Your task to perform on an android device: turn off notifications in google photos Image 0: 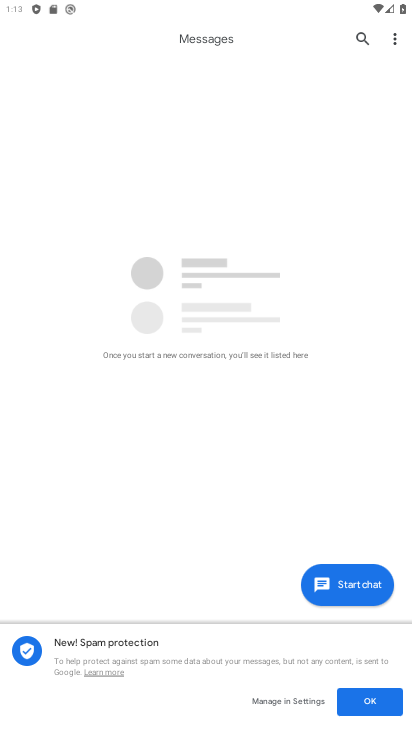
Step 0: press home button
Your task to perform on an android device: turn off notifications in google photos Image 1: 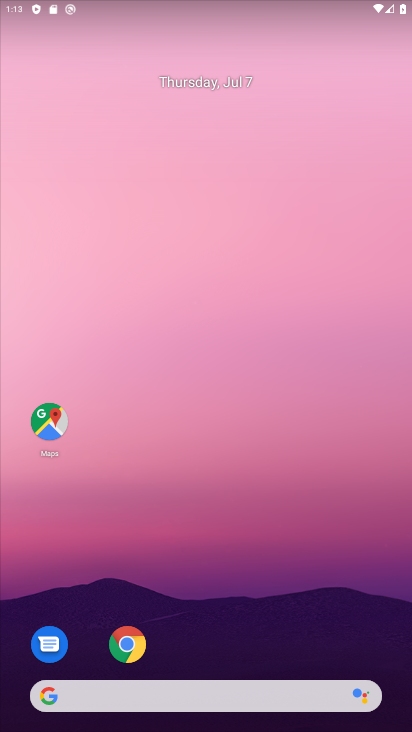
Step 1: drag from (28, 696) to (299, 447)
Your task to perform on an android device: turn off notifications in google photos Image 2: 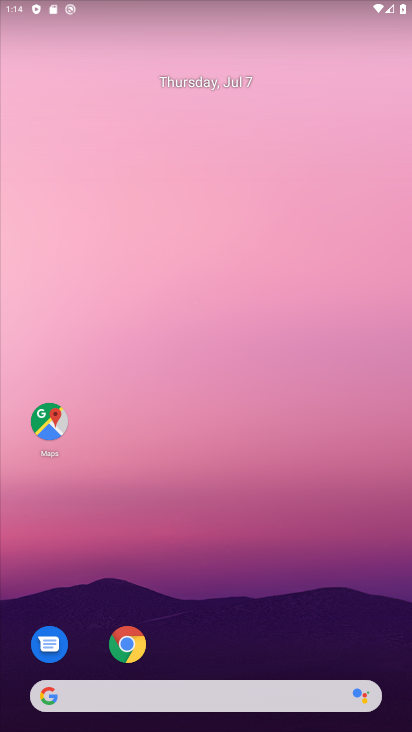
Step 2: drag from (21, 705) to (335, 142)
Your task to perform on an android device: turn off notifications in google photos Image 3: 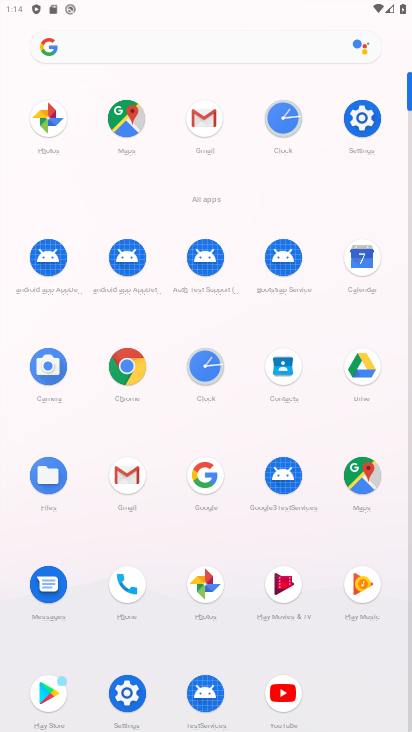
Step 3: click (208, 595)
Your task to perform on an android device: turn off notifications in google photos Image 4: 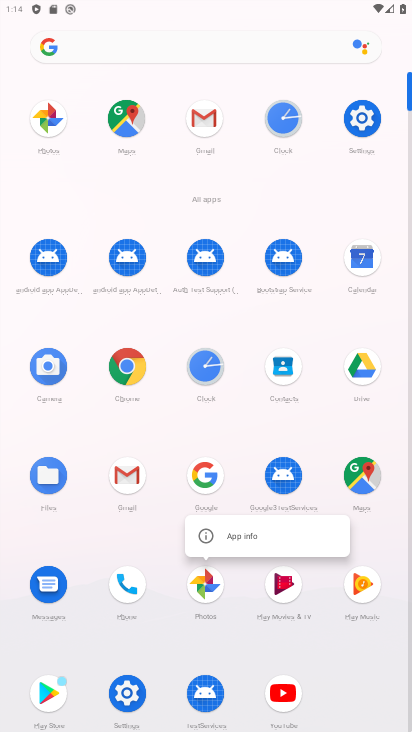
Step 4: click (203, 581)
Your task to perform on an android device: turn off notifications in google photos Image 5: 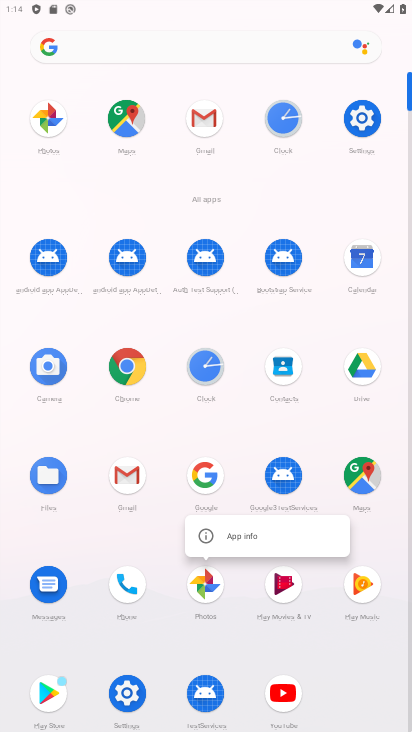
Step 5: click (203, 581)
Your task to perform on an android device: turn off notifications in google photos Image 6: 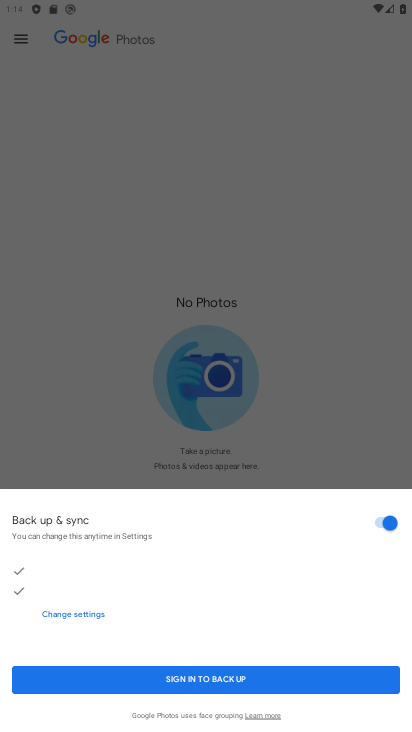
Step 6: click (192, 683)
Your task to perform on an android device: turn off notifications in google photos Image 7: 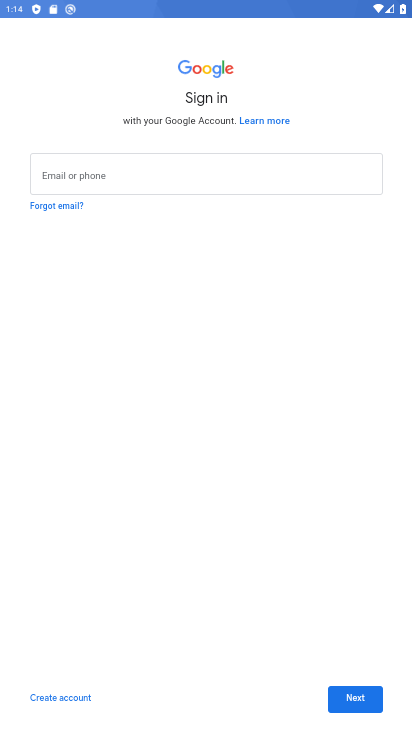
Step 7: task complete